Your task to perform on an android device: change the upload size in google photos Image 0: 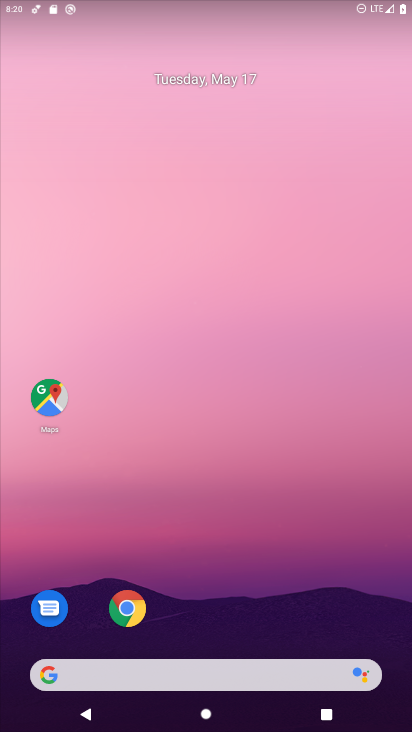
Step 0: drag from (203, 589) to (235, 107)
Your task to perform on an android device: change the upload size in google photos Image 1: 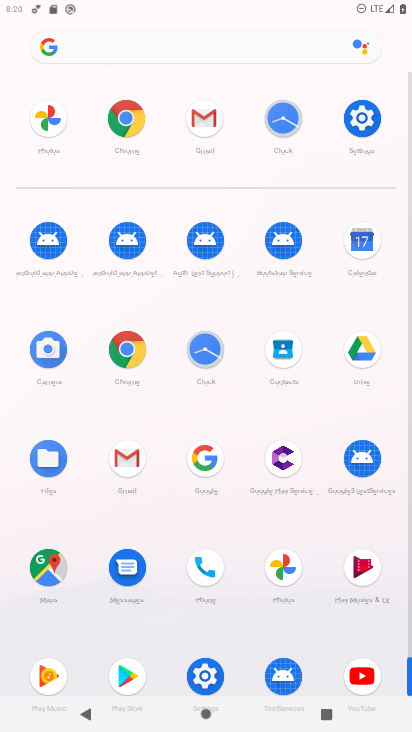
Step 1: click (278, 566)
Your task to perform on an android device: change the upload size in google photos Image 2: 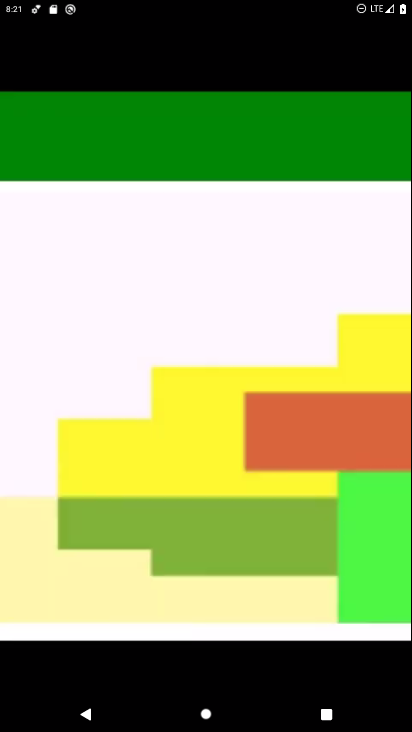
Step 2: press back button
Your task to perform on an android device: change the upload size in google photos Image 3: 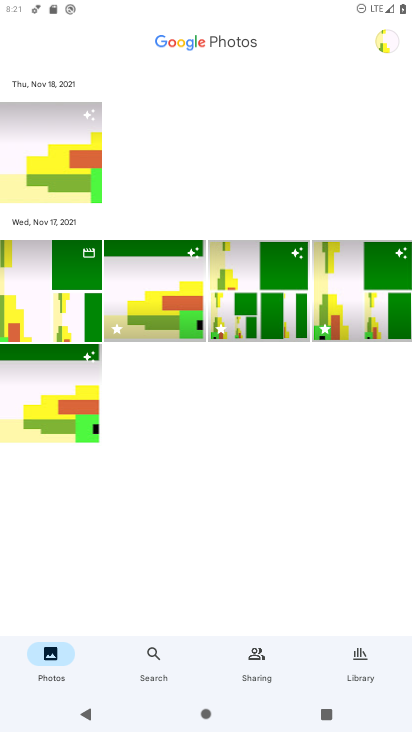
Step 3: click (365, 657)
Your task to perform on an android device: change the upload size in google photos Image 4: 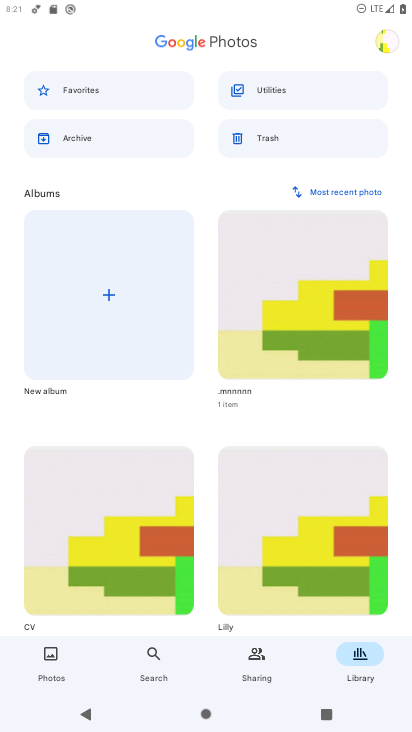
Step 4: click (386, 38)
Your task to perform on an android device: change the upload size in google photos Image 5: 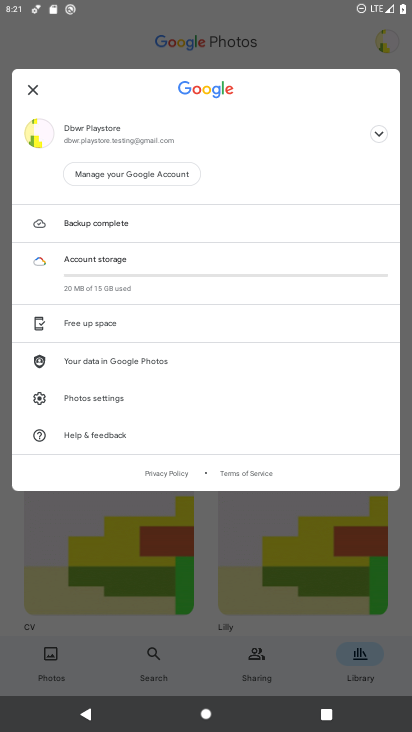
Step 5: click (108, 393)
Your task to perform on an android device: change the upload size in google photos Image 6: 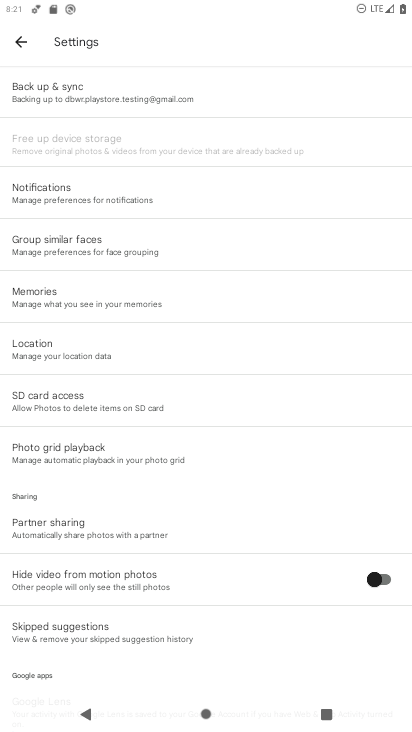
Step 6: click (138, 83)
Your task to perform on an android device: change the upload size in google photos Image 7: 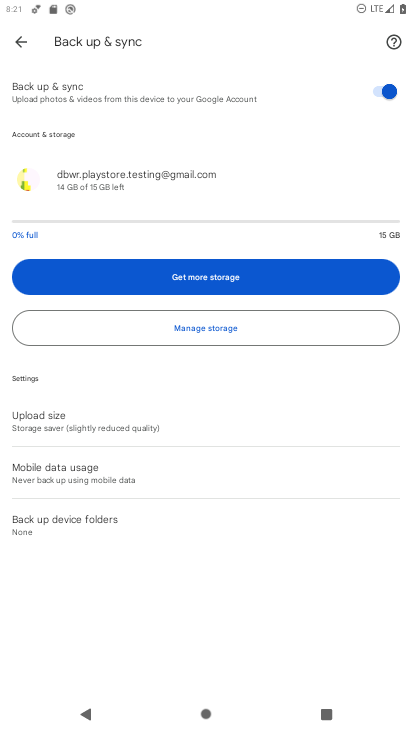
Step 7: click (142, 421)
Your task to perform on an android device: change the upload size in google photos Image 8: 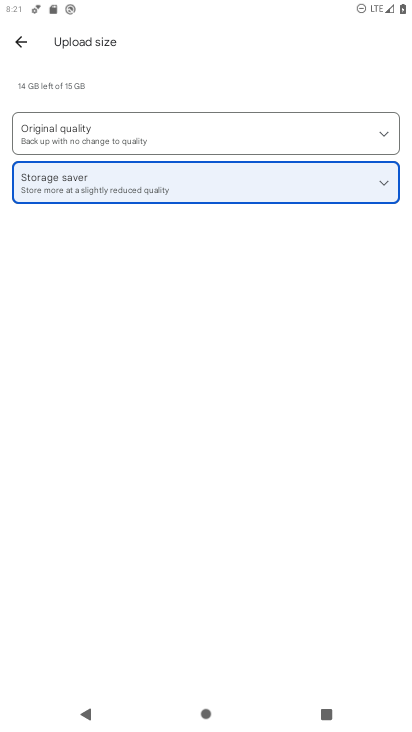
Step 8: click (136, 128)
Your task to perform on an android device: change the upload size in google photos Image 9: 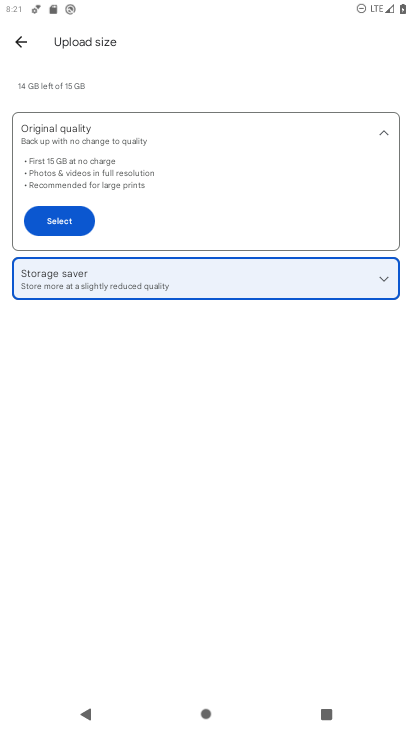
Step 9: click (62, 213)
Your task to perform on an android device: change the upload size in google photos Image 10: 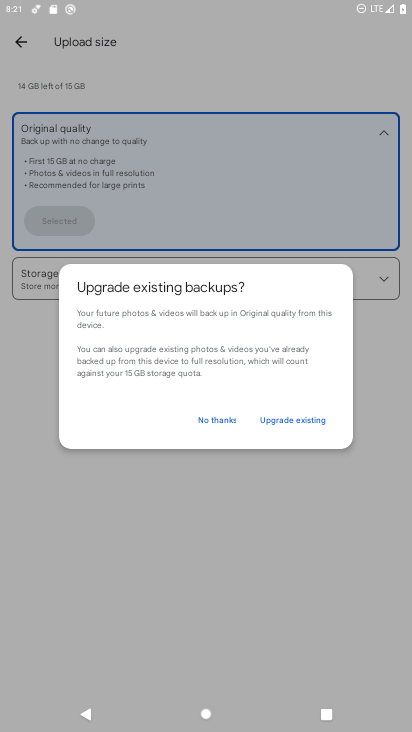
Step 10: click (210, 419)
Your task to perform on an android device: change the upload size in google photos Image 11: 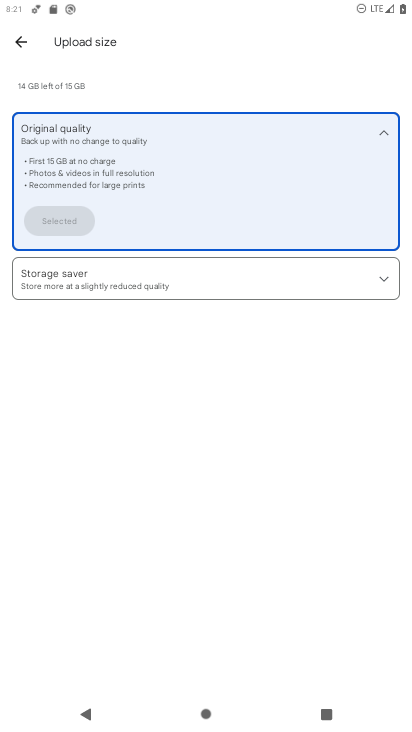
Step 11: task complete